Your task to perform on an android device: Open Chrome and go to the settings page Image 0: 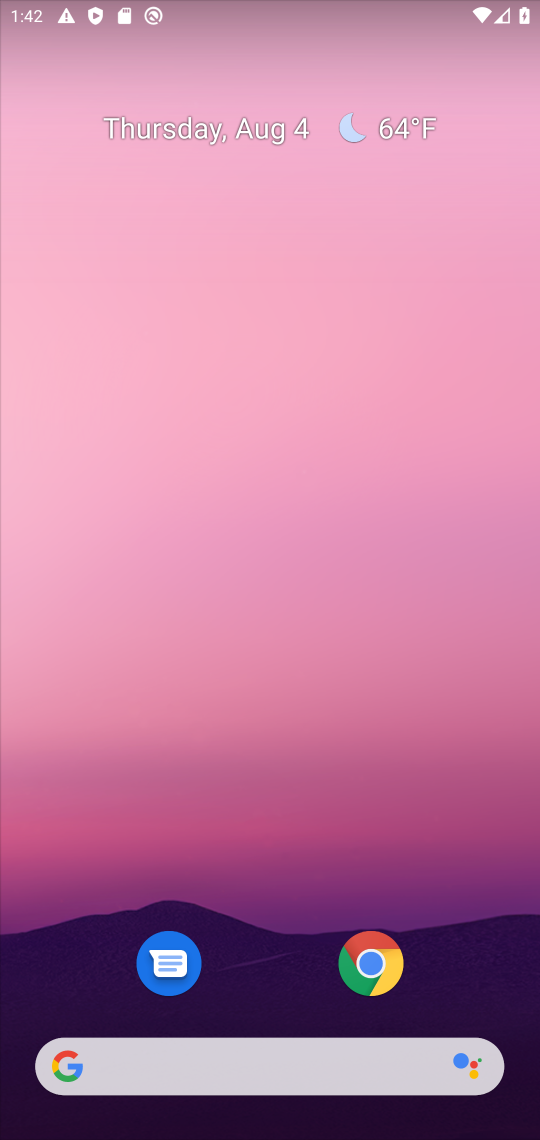
Step 0: click (371, 985)
Your task to perform on an android device: Open Chrome and go to the settings page Image 1: 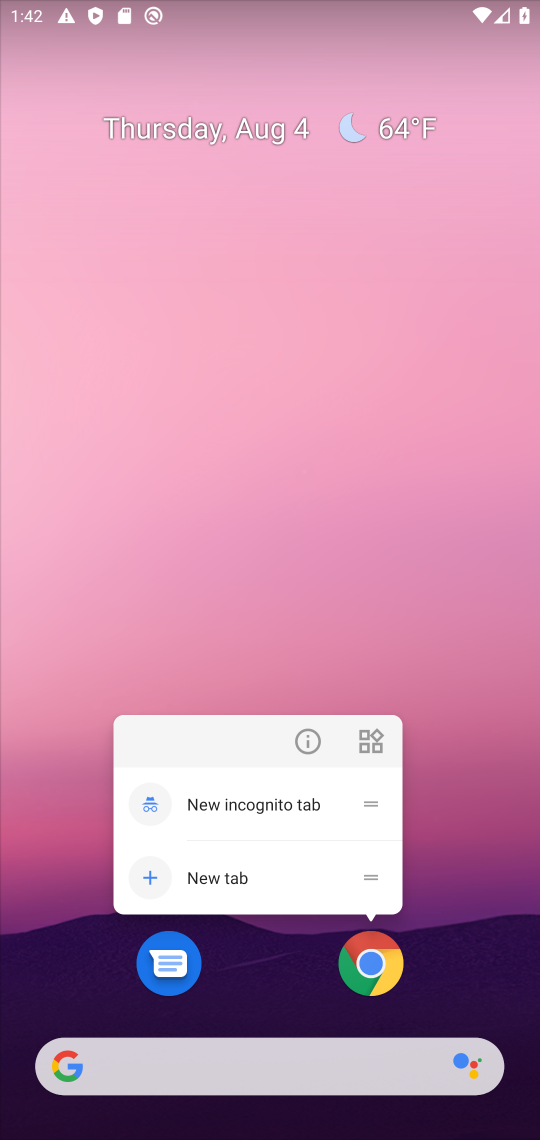
Step 1: click (371, 985)
Your task to perform on an android device: Open Chrome and go to the settings page Image 2: 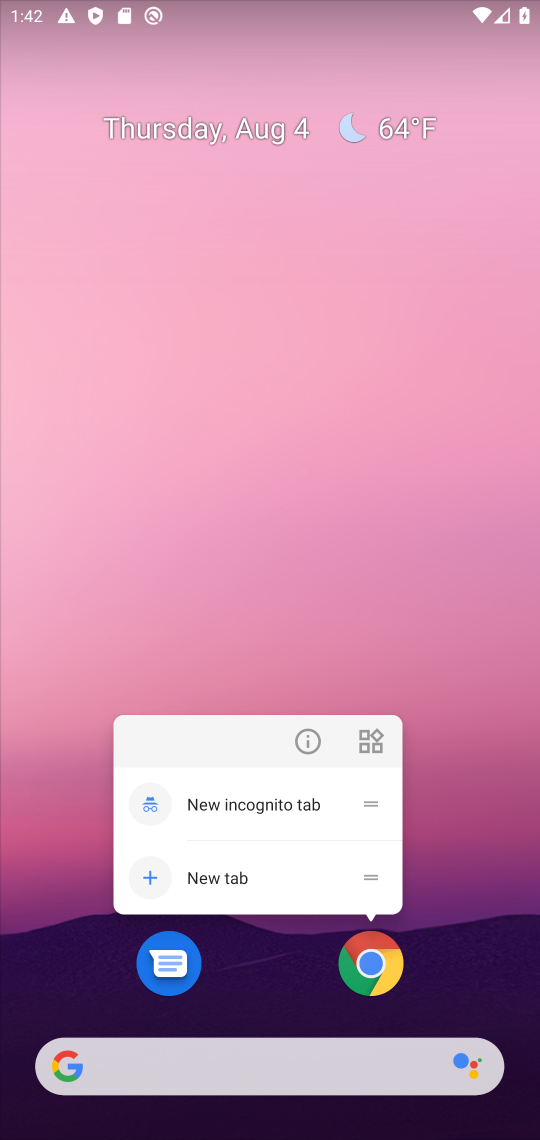
Step 2: click (355, 966)
Your task to perform on an android device: Open Chrome and go to the settings page Image 3: 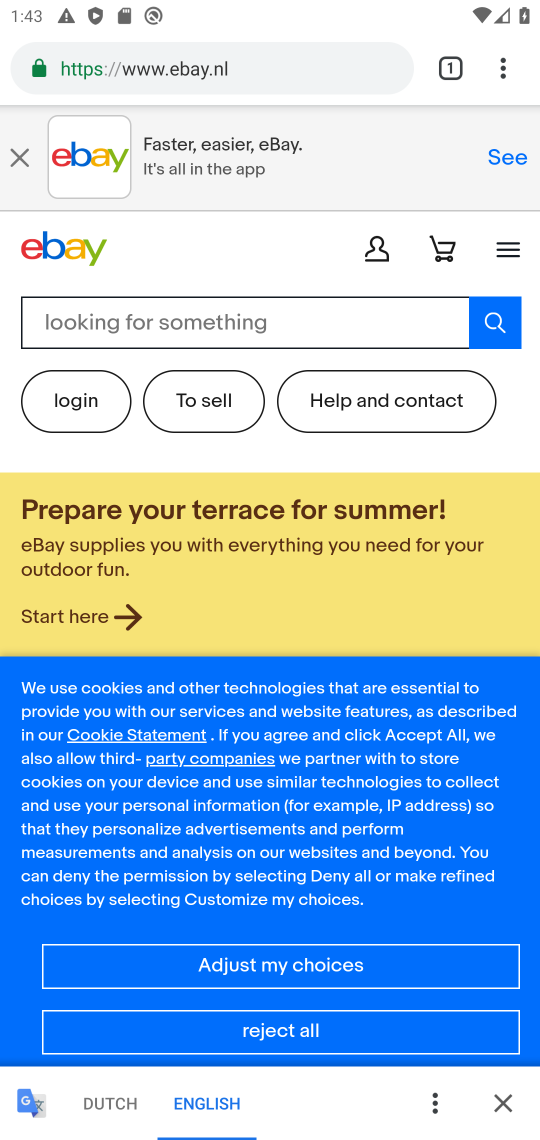
Step 3: click (513, 67)
Your task to perform on an android device: Open Chrome and go to the settings page Image 4: 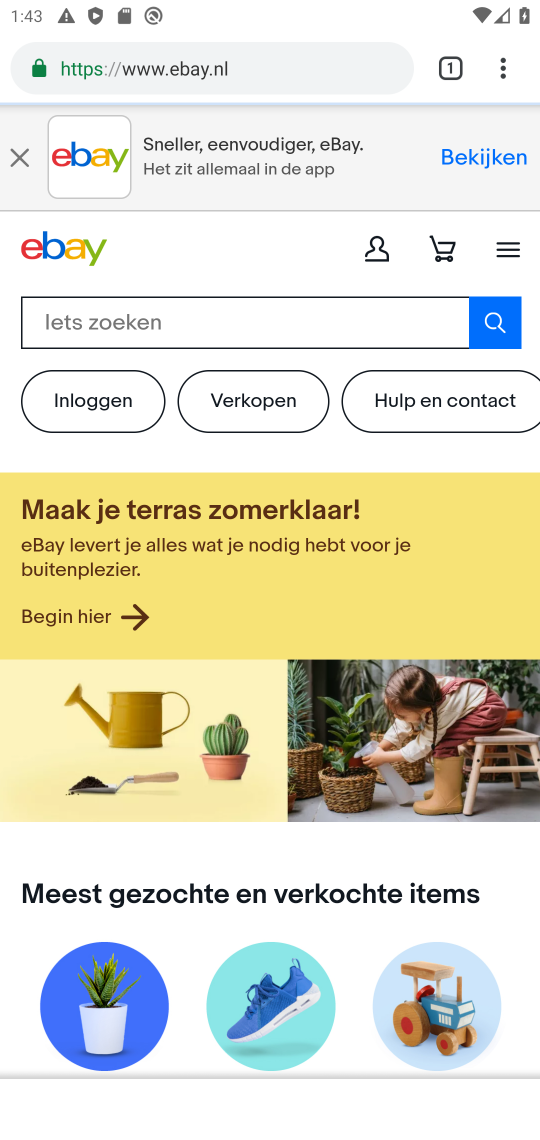
Step 4: task complete